Your task to perform on an android device: empty trash in google photos Image 0: 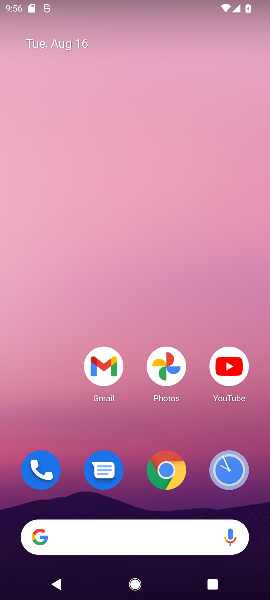
Step 0: click (164, 358)
Your task to perform on an android device: empty trash in google photos Image 1: 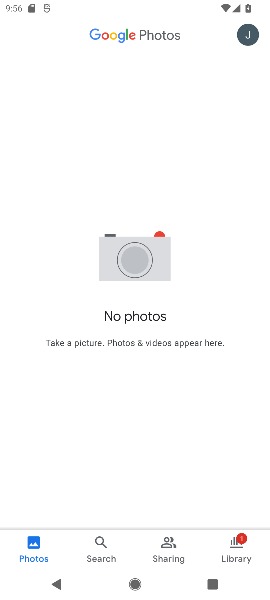
Step 1: click (253, 37)
Your task to perform on an android device: empty trash in google photos Image 2: 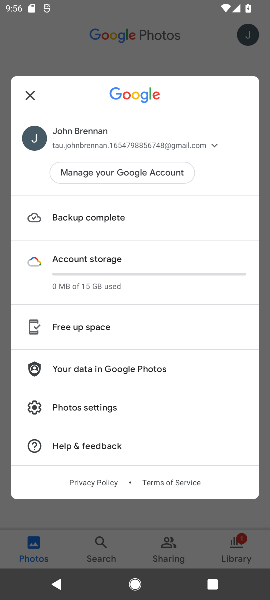
Step 2: click (76, 331)
Your task to perform on an android device: empty trash in google photos Image 3: 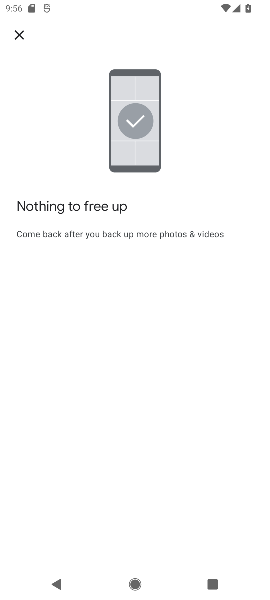
Step 3: task complete